Your task to perform on an android device: Open Google Chrome and open the bookmarks view Image 0: 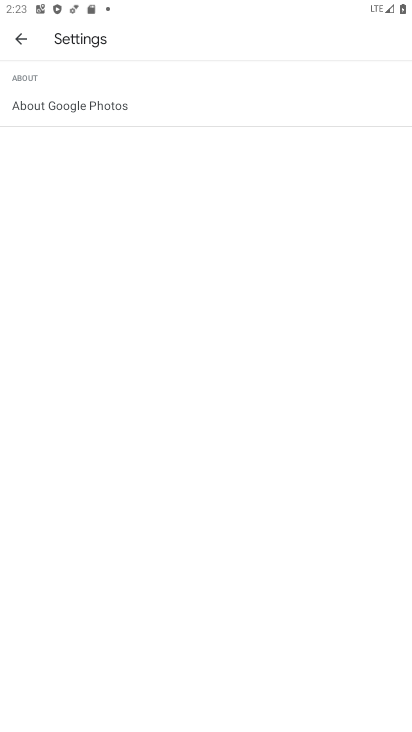
Step 0: press home button
Your task to perform on an android device: Open Google Chrome and open the bookmarks view Image 1: 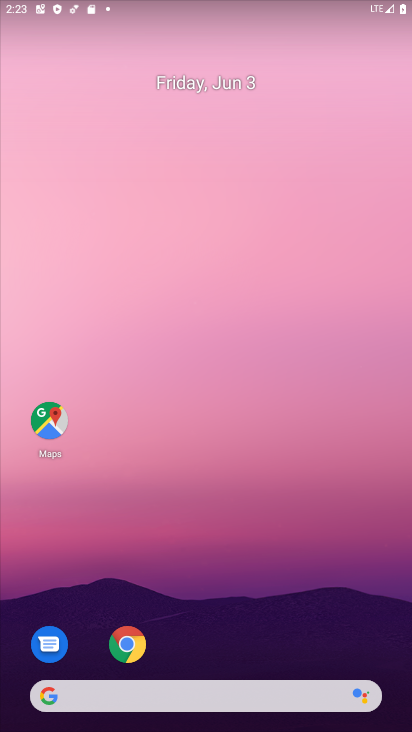
Step 1: click (133, 650)
Your task to perform on an android device: Open Google Chrome and open the bookmarks view Image 2: 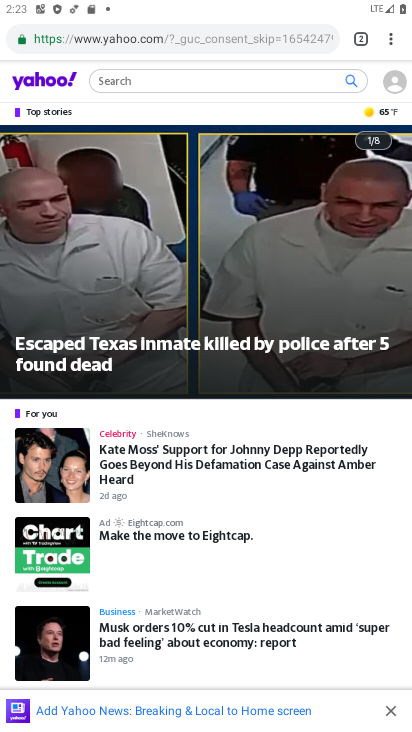
Step 2: click (387, 44)
Your task to perform on an android device: Open Google Chrome and open the bookmarks view Image 3: 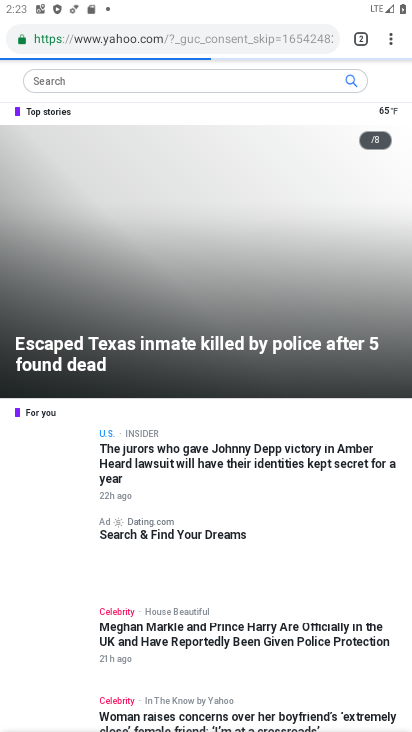
Step 3: click (389, 40)
Your task to perform on an android device: Open Google Chrome and open the bookmarks view Image 4: 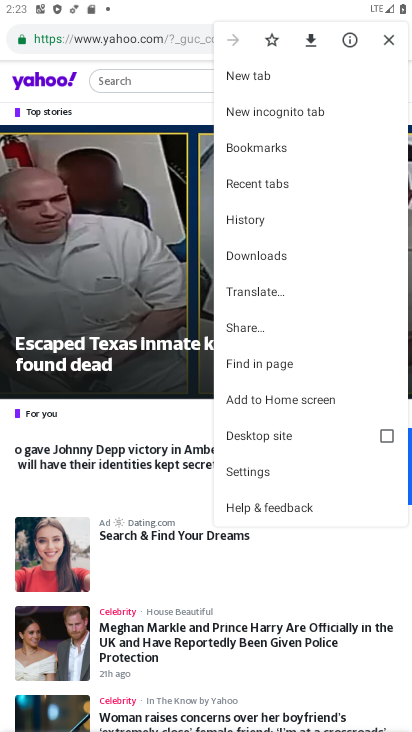
Step 4: click (296, 151)
Your task to perform on an android device: Open Google Chrome and open the bookmarks view Image 5: 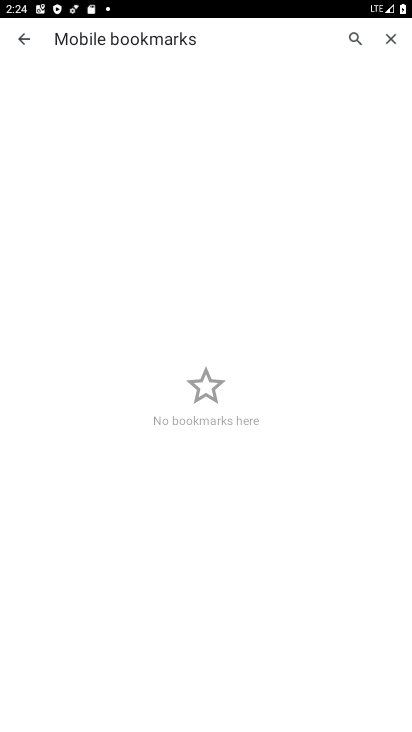
Step 5: task complete